Your task to perform on an android device: Open Chrome and go to the settings page Image 0: 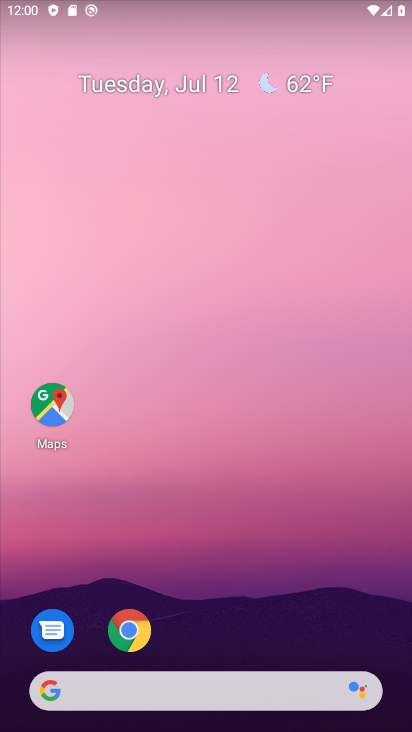
Step 0: click (125, 632)
Your task to perform on an android device: Open Chrome and go to the settings page Image 1: 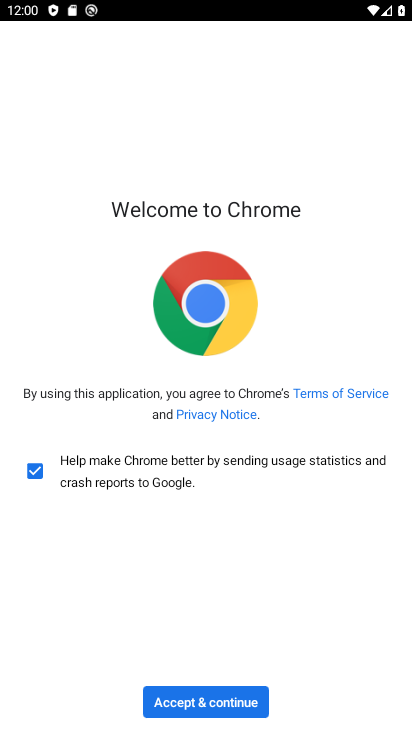
Step 1: click (209, 699)
Your task to perform on an android device: Open Chrome and go to the settings page Image 2: 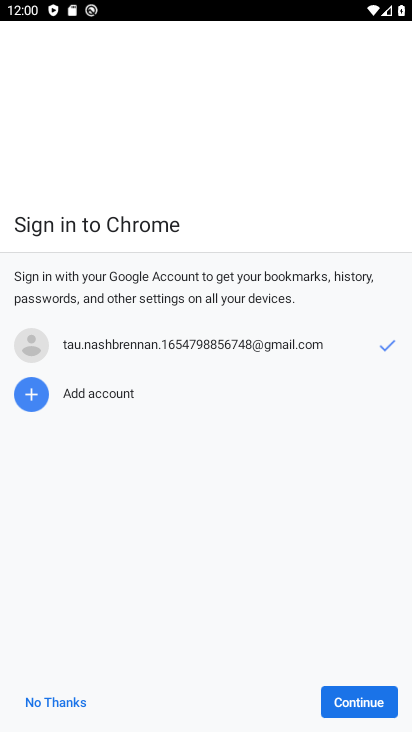
Step 2: click (345, 705)
Your task to perform on an android device: Open Chrome and go to the settings page Image 3: 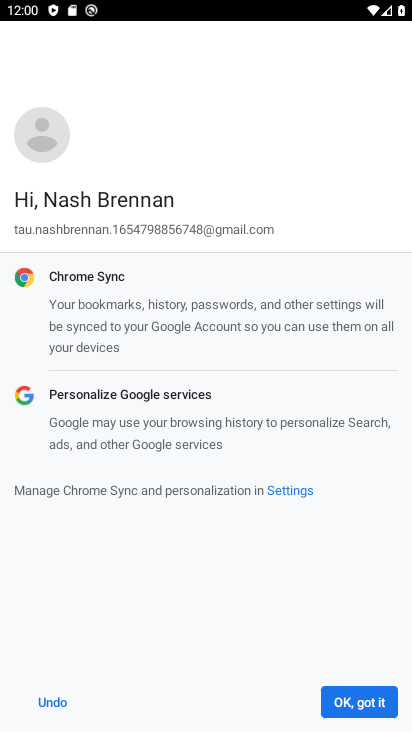
Step 3: click (345, 705)
Your task to perform on an android device: Open Chrome and go to the settings page Image 4: 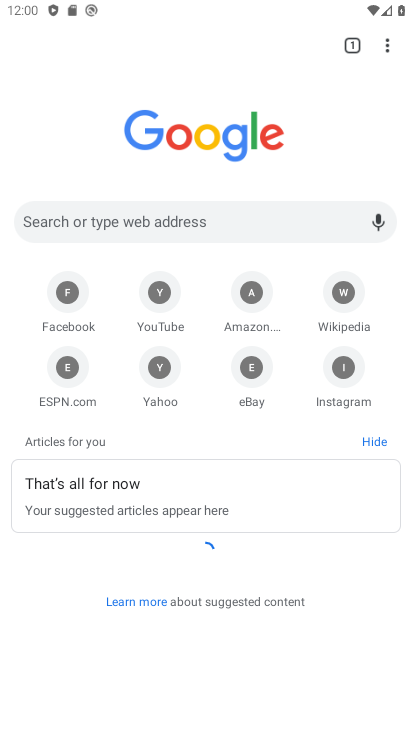
Step 4: click (383, 46)
Your task to perform on an android device: Open Chrome and go to the settings page Image 5: 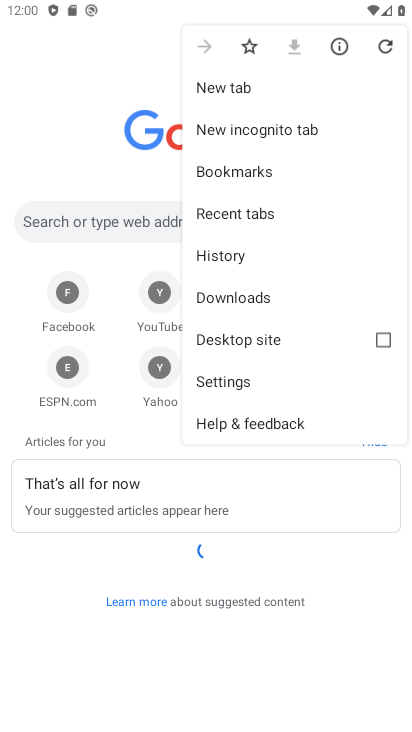
Step 5: click (226, 390)
Your task to perform on an android device: Open Chrome and go to the settings page Image 6: 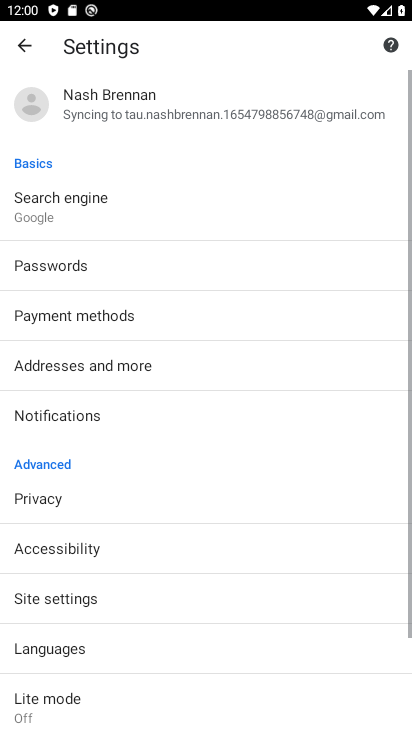
Step 6: task complete